Your task to perform on an android device: turn on the 12-hour format for clock Image 0: 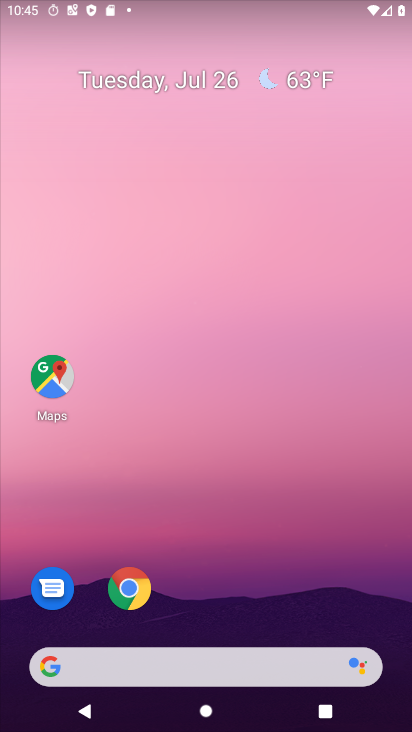
Step 0: drag from (180, 433) to (108, 7)
Your task to perform on an android device: turn on the 12-hour format for clock Image 1: 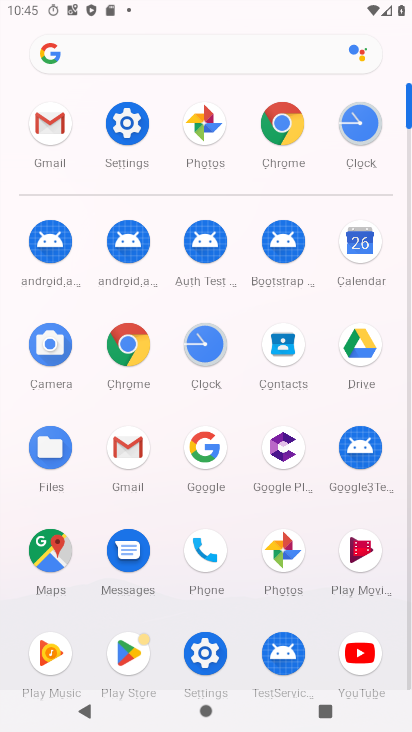
Step 1: click (205, 334)
Your task to perform on an android device: turn on the 12-hour format for clock Image 2: 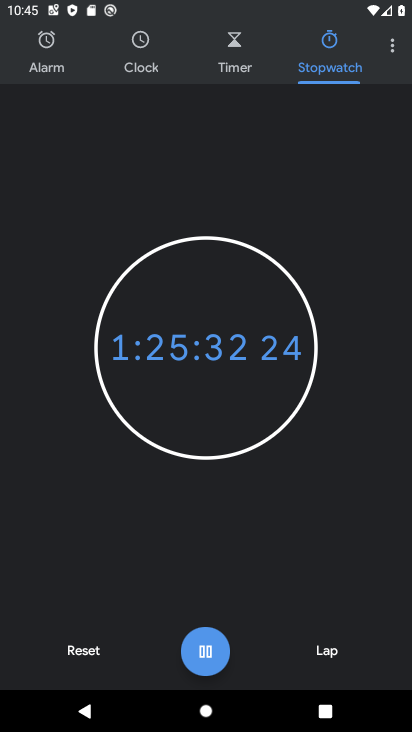
Step 2: click (398, 46)
Your task to perform on an android device: turn on the 12-hour format for clock Image 3: 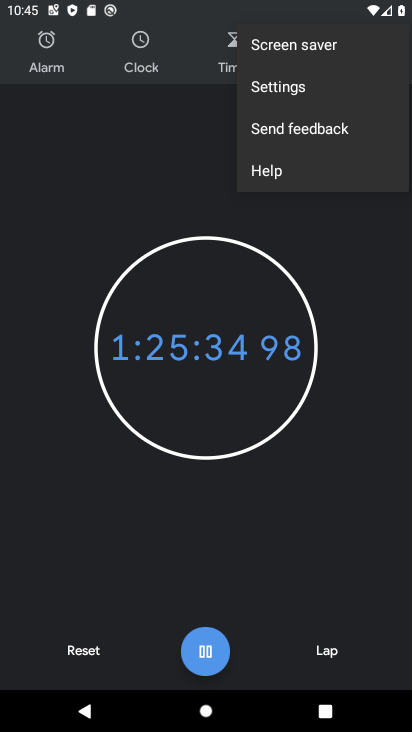
Step 3: click (350, 88)
Your task to perform on an android device: turn on the 12-hour format for clock Image 4: 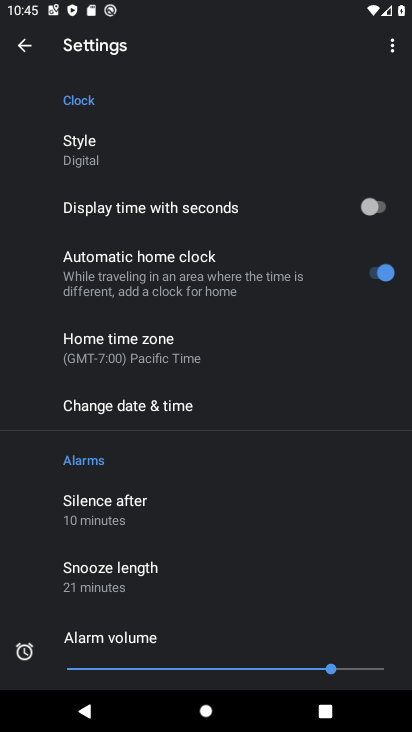
Step 4: task complete